Your task to perform on an android device: uninstall "Messenger Lite" Image 0: 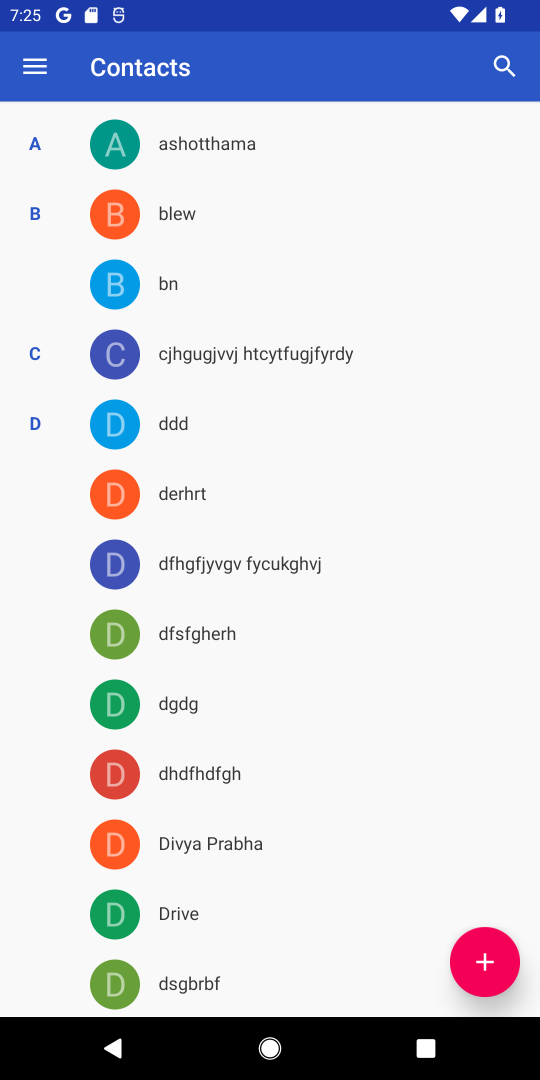
Step 0: press home button
Your task to perform on an android device: uninstall "Messenger Lite" Image 1: 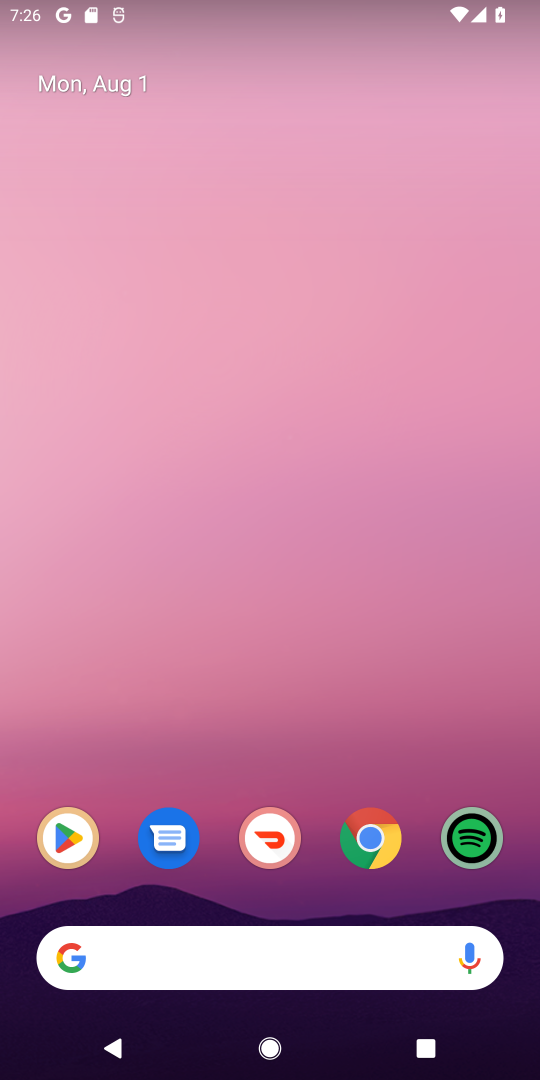
Step 1: click (85, 845)
Your task to perform on an android device: uninstall "Messenger Lite" Image 2: 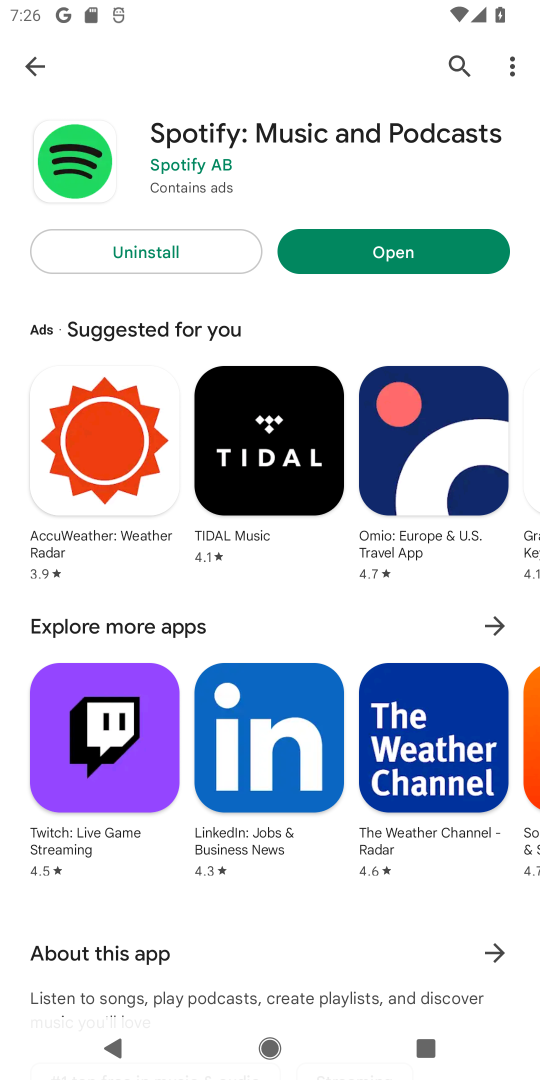
Step 2: click (37, 65)
Your task to perform on an android device: uninstall "Messenger Lite" Image 3: 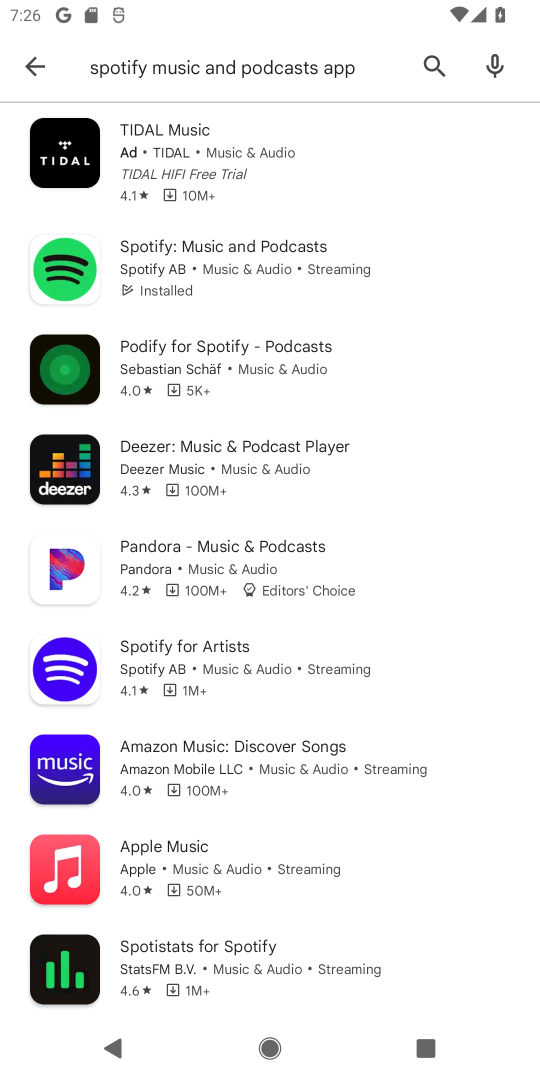
Step 3: click (29, 70)
Your task to perform on an android device: uninstall "Messenger Lite" Image 4: 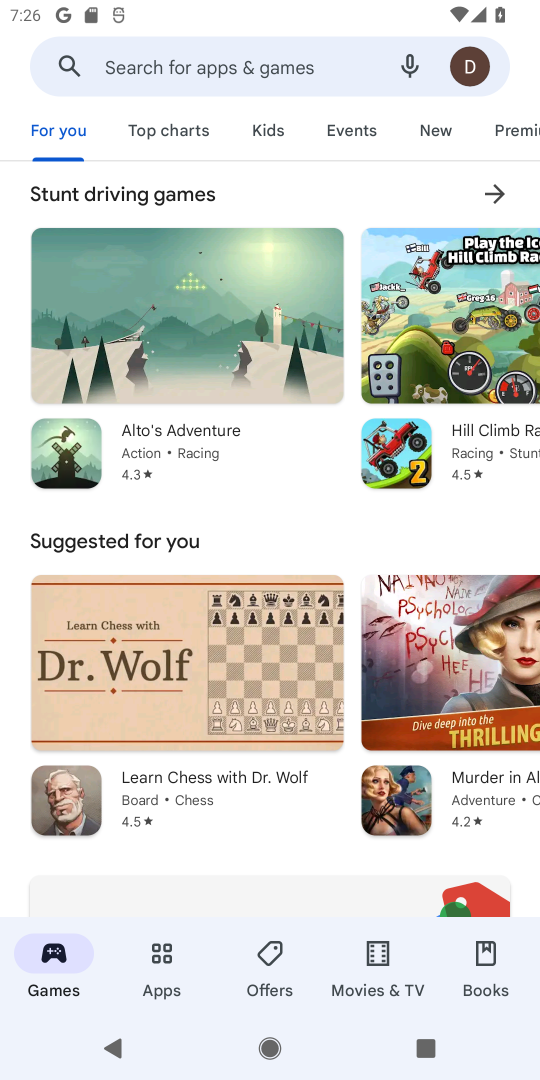
Step 4: click (74, 82)
Your task to perform on an android device: uninstall "Messenger Lite" Image 5: 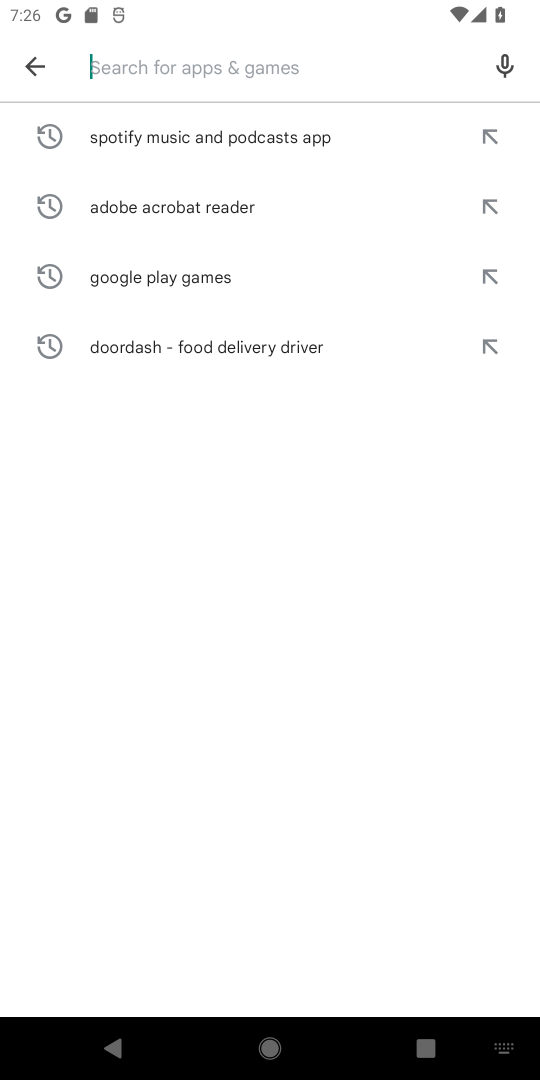
Step 5: type "Messenger Lite"
Your task to perform on an android device: uninstall "Messenger Lite" Image 6: 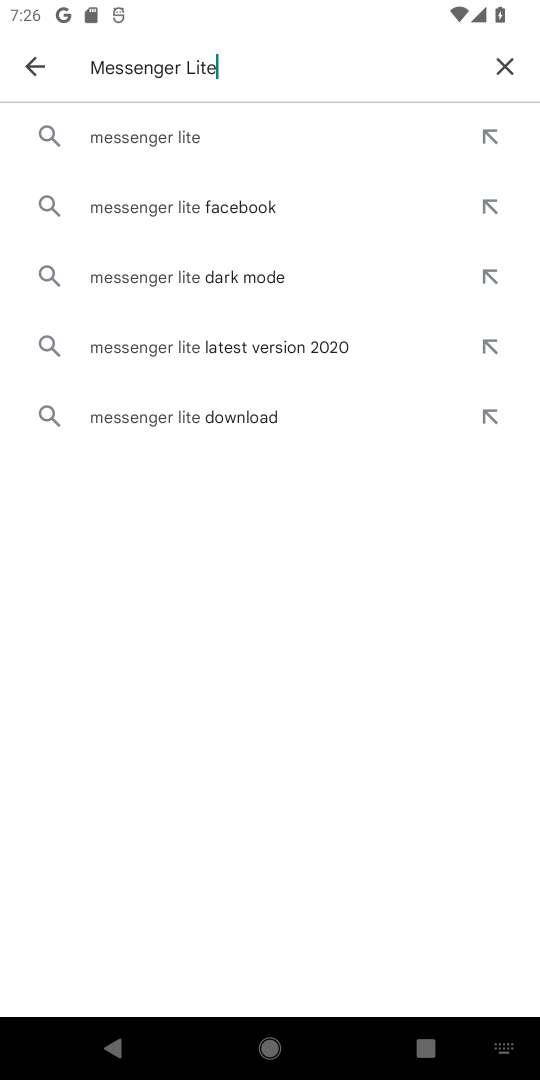
Step 6: click (136, 115)
Your task to perform on an android device: uninstall "Messenger Lite" Image 7: 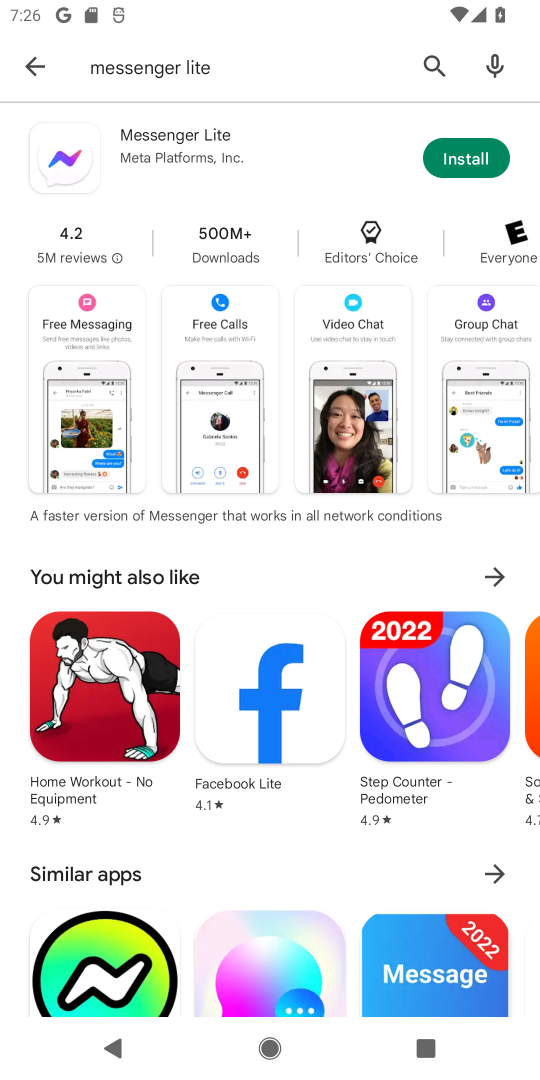
Step 7: click (243, 165)
Your task to perform on an android device: uninstall "Messenger Lite" Image 8: 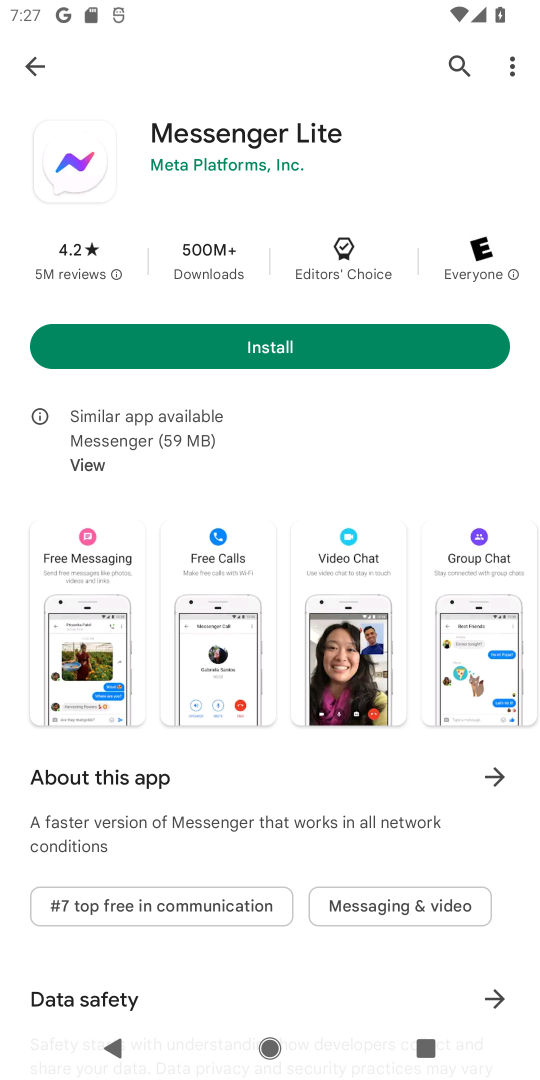
Step 8: task complete